Your task to perform on an android device: Open Maps and search for coffee Image 0: 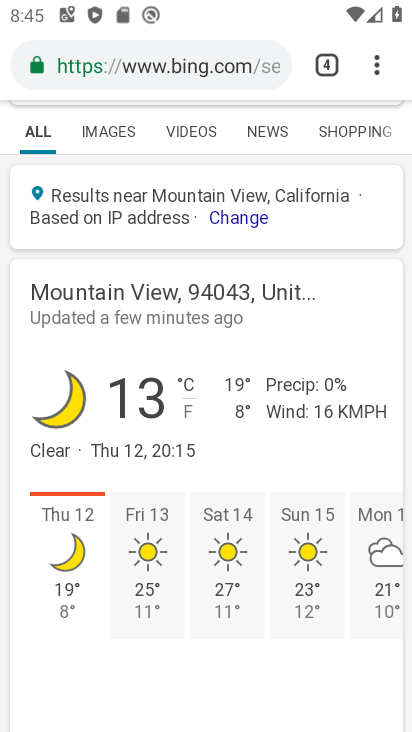
Step 0: press home button
Your task to perform on an android device: Open Maps and search for coffee Image 1: 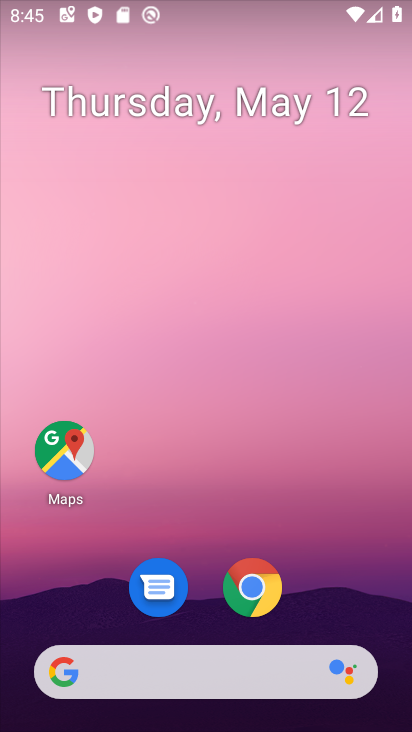
Step 1: click (69, 441)
Your task to perform on an android device: Open Maps and search for coffee Image 2: 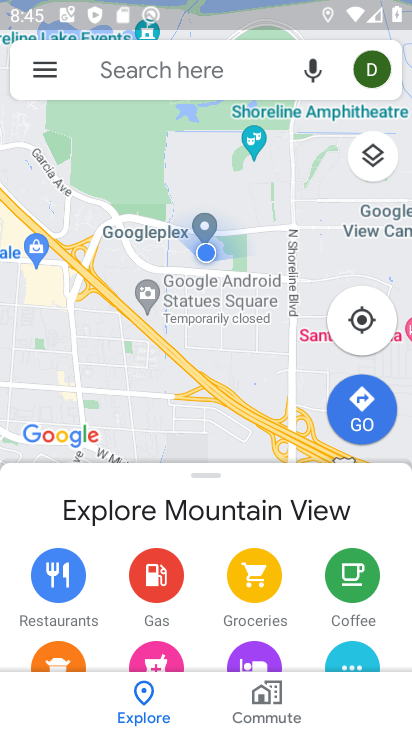
Step 2: click (235, 68)
Your task to perform on an android device: Open Maps and search for coffee Image 3: 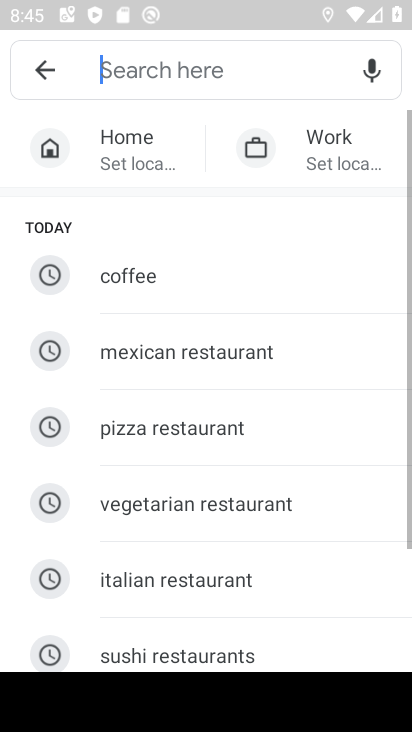
Step 3: click (156, 265)
Your task to perform on an android device: Open Maps and search for coffee Image 4: 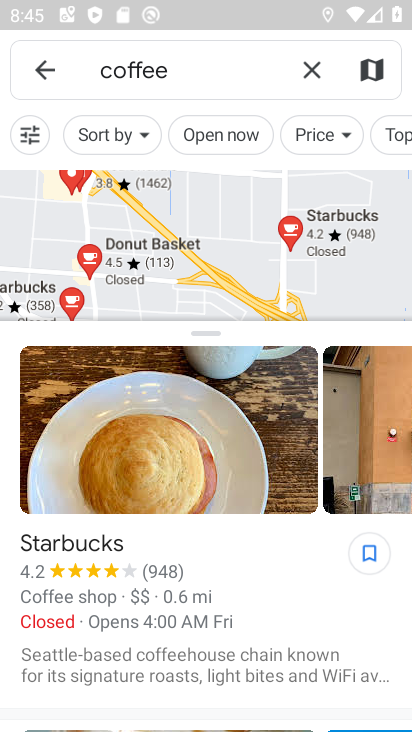
Step 4: task complete